Your task to perform on an android device: change keyboard looks Image 0: 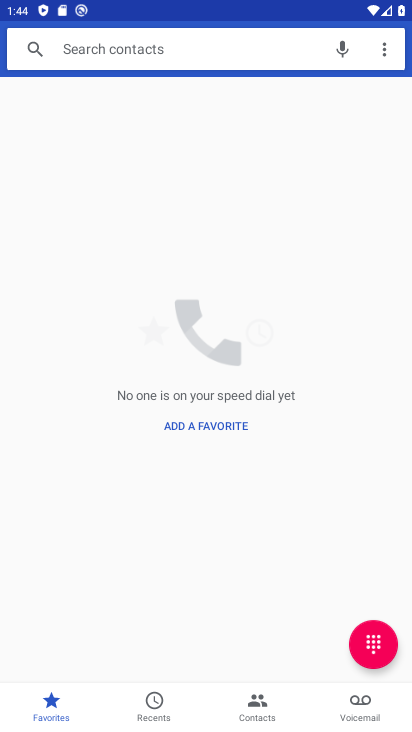
Step 0: press home button
Your task to perform on an android device: change keyboard looks Image 1: 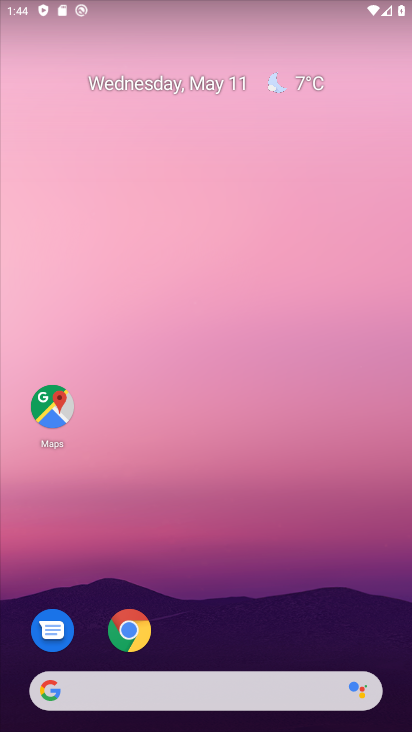
Step 1: drag from (370, 652) to (336, 39)
Your task to perform on an android device: change keyboard looks Image 2: 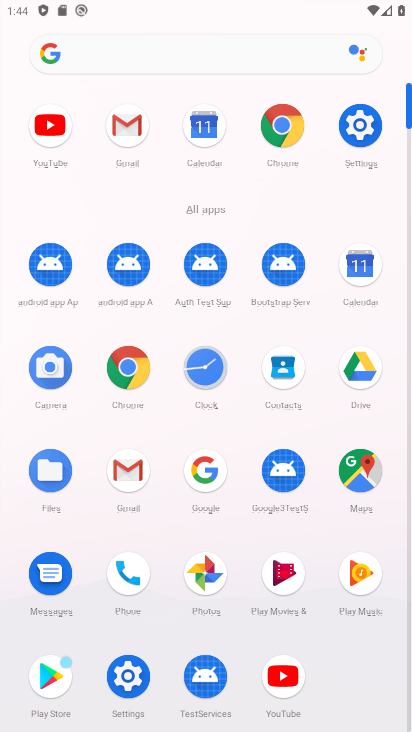
Step 2: click (125, 681)
Your task to perform on an android device: change keyboard looks Image 3: 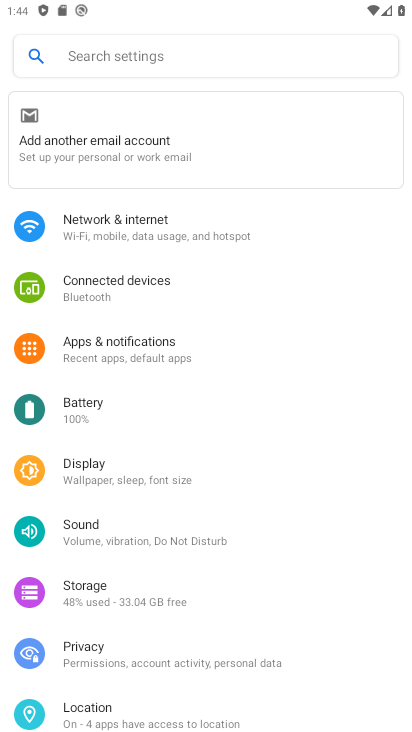
Step 3: drag from (118, 657) to (134, 76)
Your task to perform on an android device: change keyboard looks Image 4: 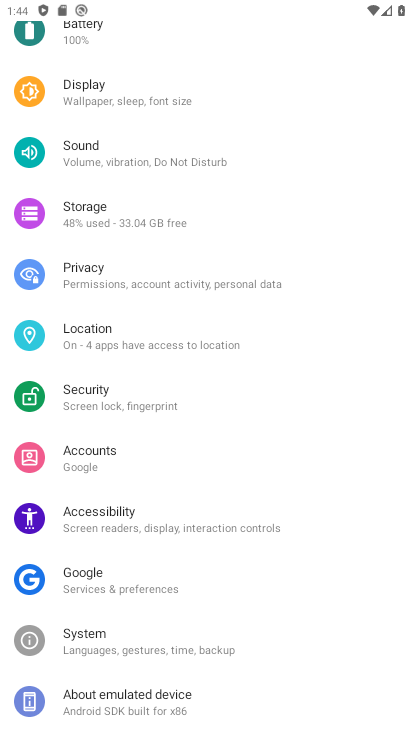
Step 4: click (136, 654)
Your task to perform on an android device: change keyboard looks Image 5: 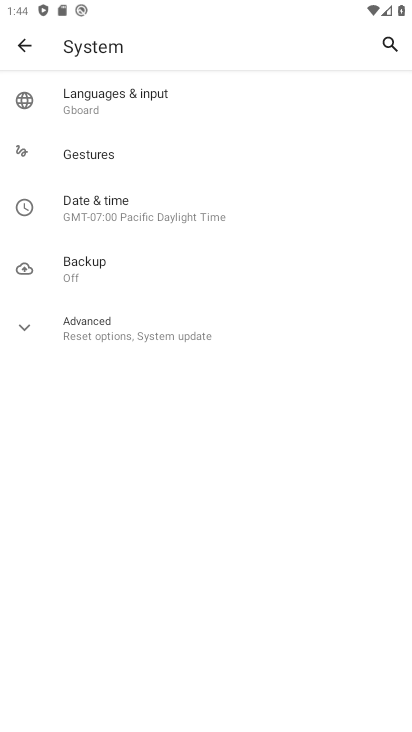
Step 5: click (118, 96)
Your task to perform on an android device: change keyboard looks Image 6: 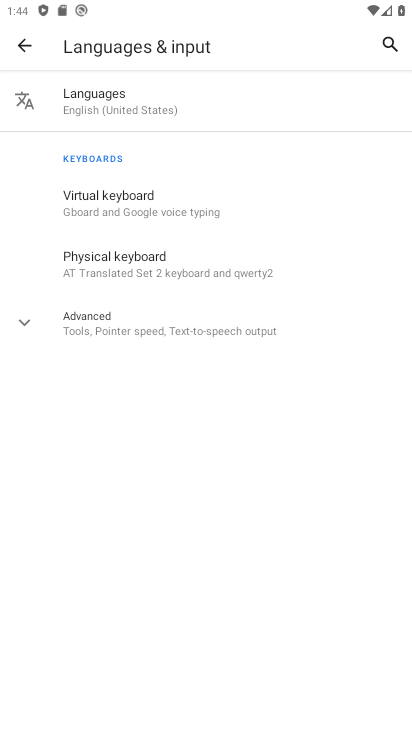
Step 6: click (134, 233)
Your task to perform on an android device: change keyboard looks Image 7: 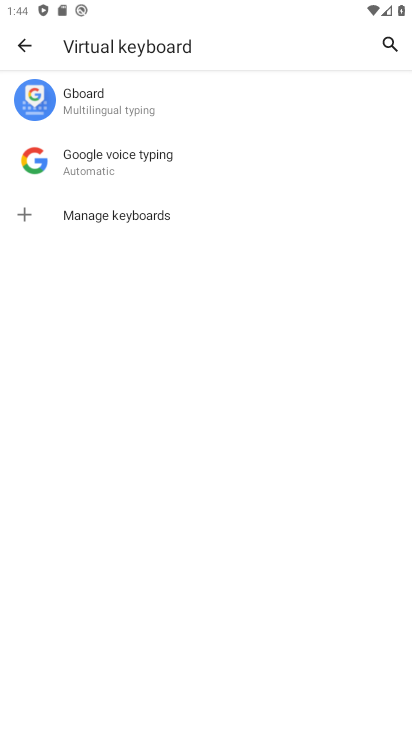
Step 7: click (153, 88)
Your task to perform on an android device: change keyboard looks Image 8: 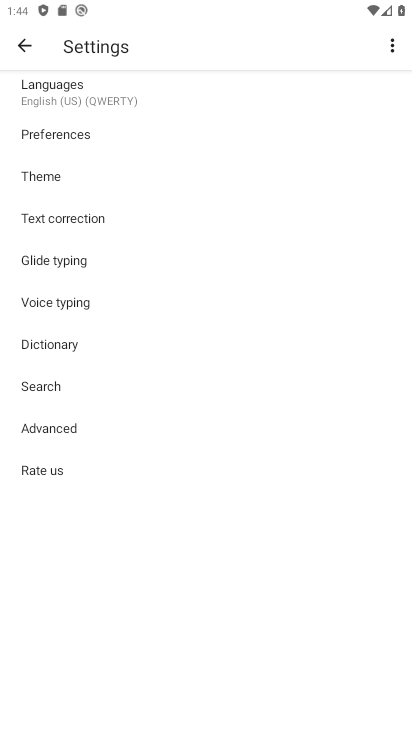
Step 8: click (30, 178)
Your task to perform on an android device: change keyboard looks Image 9: 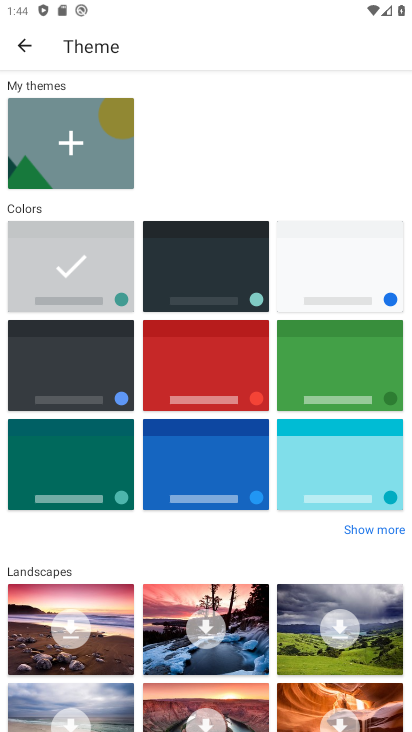
Step 9: click (223, 258)
Your task to perform on an android device: change keyboard looks Image 10: 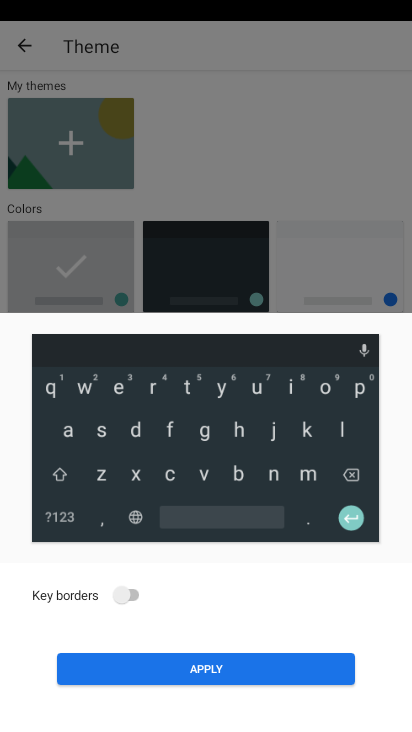
Step 10: click (207, 669)
Your task to perform on an android device: change keyboard looks Image 11: 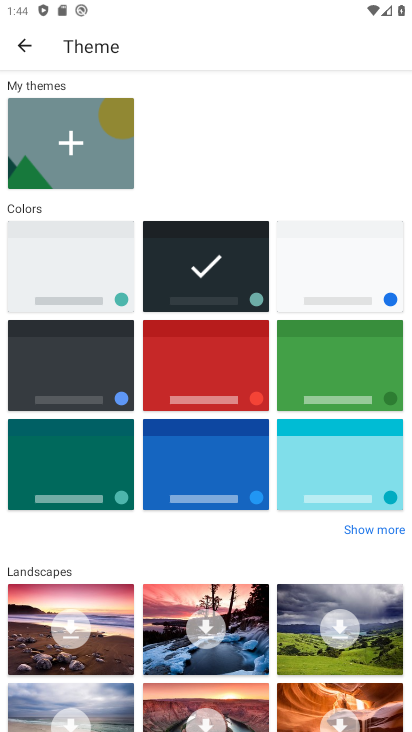
Step 11: task complete